Your task to perform on an android device: turn on showing notifications on the lock screen Image 0: 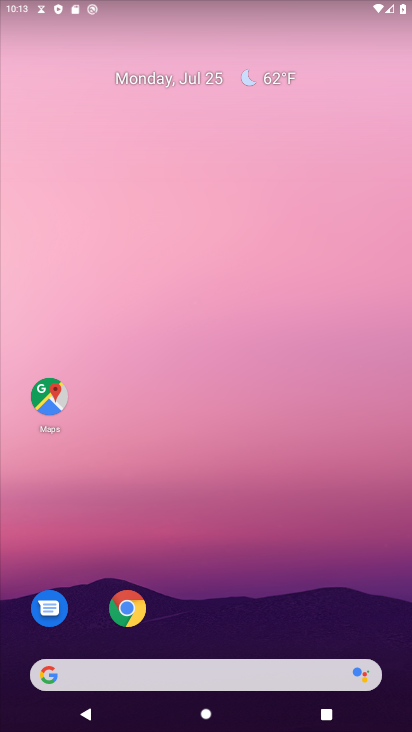
Step 0: drag from (193, 666) to (211, 154)
Your task to perform on an android device: turn on showing notifications on the lock screen Image 1: 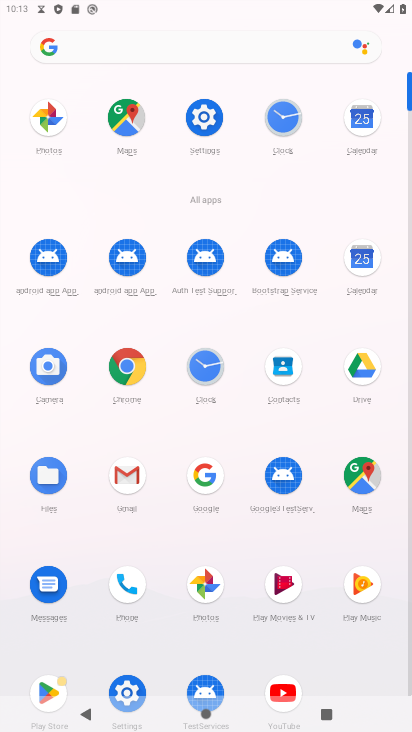
Step 1: click (205, 119)
Your task to perform on an android device: turn on showing notifications on the lock screen Image 2: 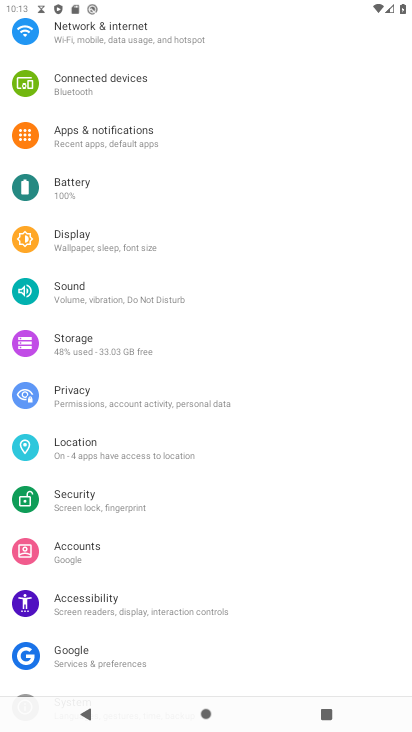
Step 2: click (134, 140)
Your task to perform on an android device: turn on showing notifications on the lock screen Image 3: 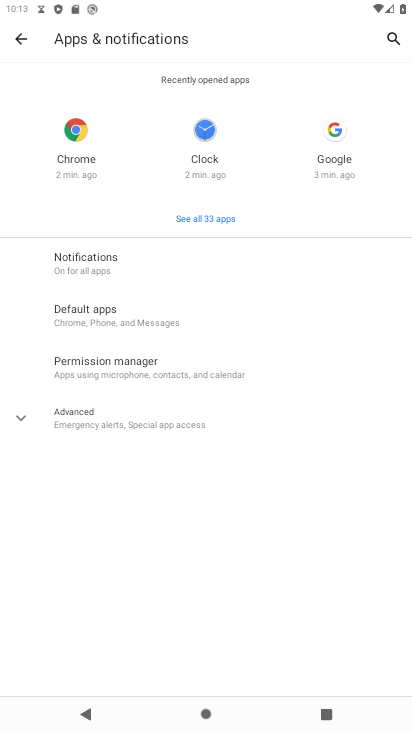
Step 3: click (96, 270)
Your task to perform on an android device: turn on showing notifications on the lock screen Image 4: 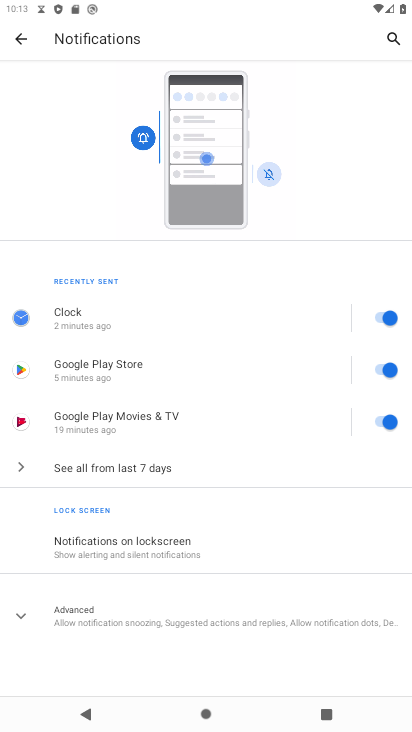
Step 4: click (144, 546)
Your task to perform on an android device: turn on showing notifications on the lock screen Image 5: 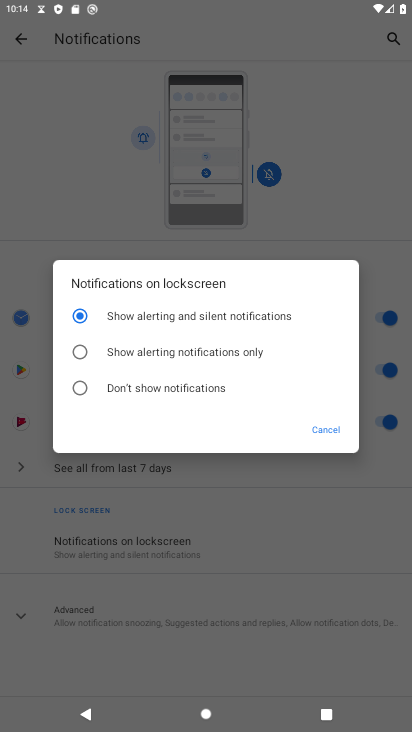
Step 5: click (78, 315)
Your task to perform on an android device: turn on showing notifications on the lock screen Image 6: 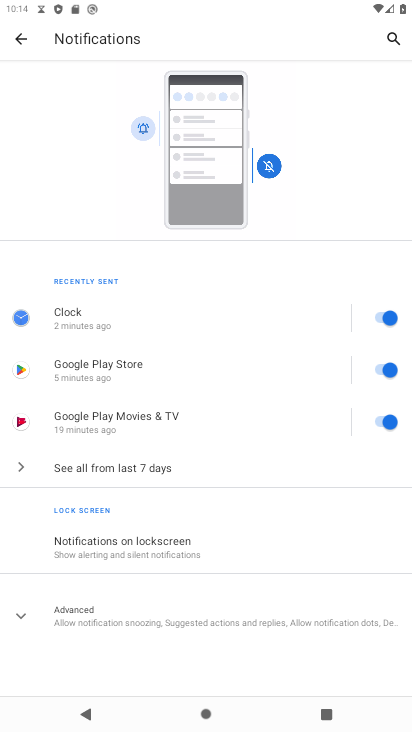
Step 6: task complete